Your task to perform on an android device: Find coffee shops on Maps Image 0: 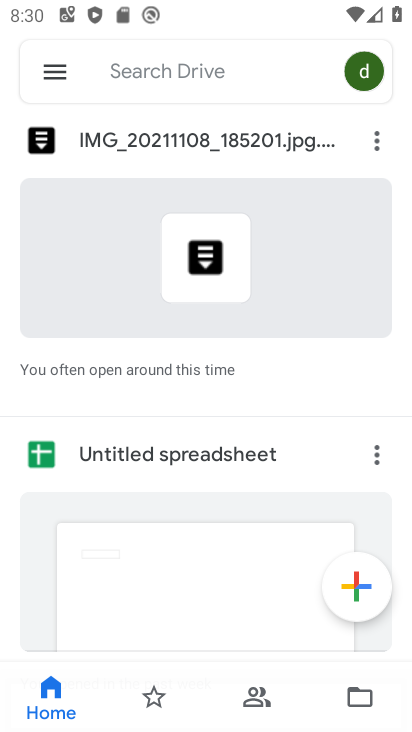
Step 0: press home button
Your task to perform on an android device: Find coffee shops on Maps Image 1: 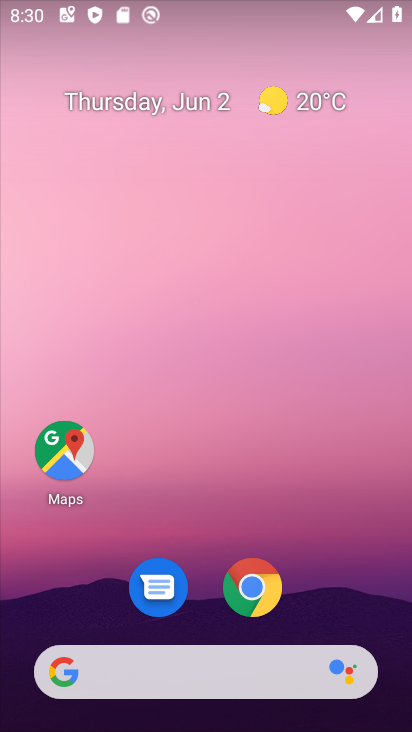
Step 1: click (74, 443)
Your task to perform on an android device: Find coffee shops on Maps Image 2: 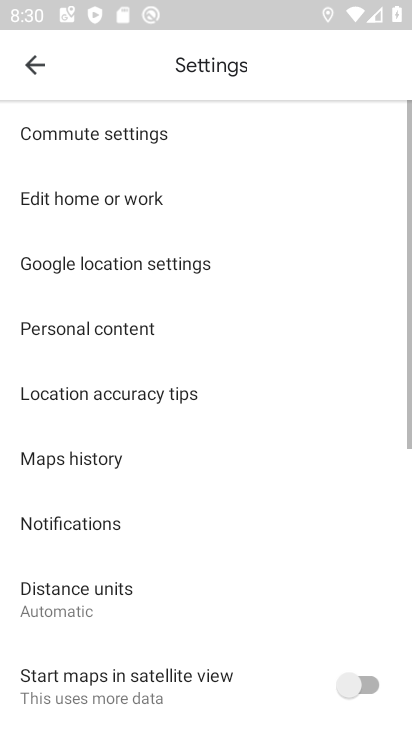
Step 2: click (31, 56)
Your task to perform on an android device: Find coffee shops on Maps Image 3: 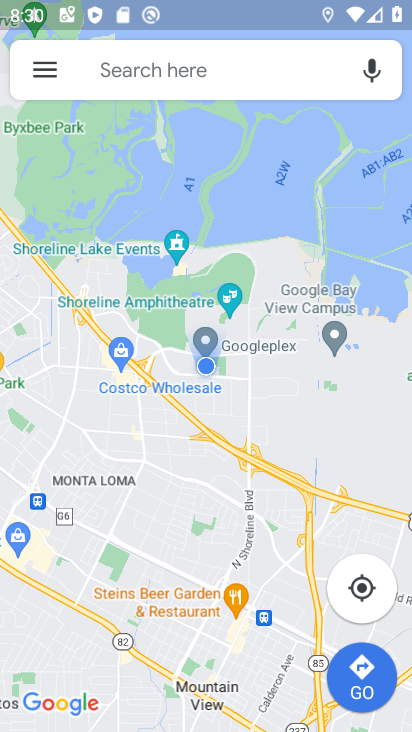
Step 3: click (201, 85)
Your task to perform on an android device: Find coffee shops on Maps Image 4: 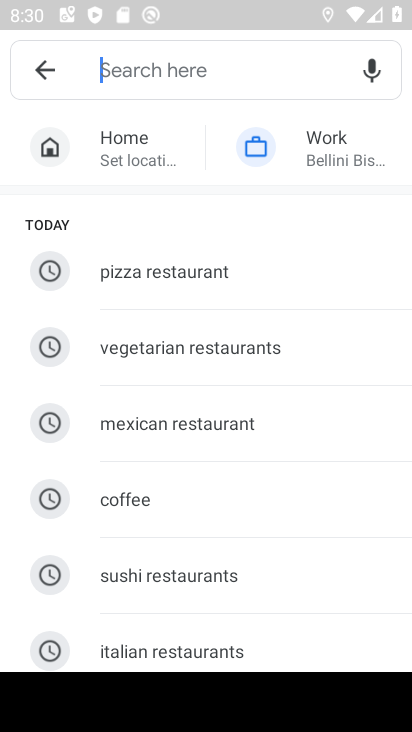
Step 4: click (116, 512)
Your task to perform on an android device: Find coffee shops on Maps Image 5: 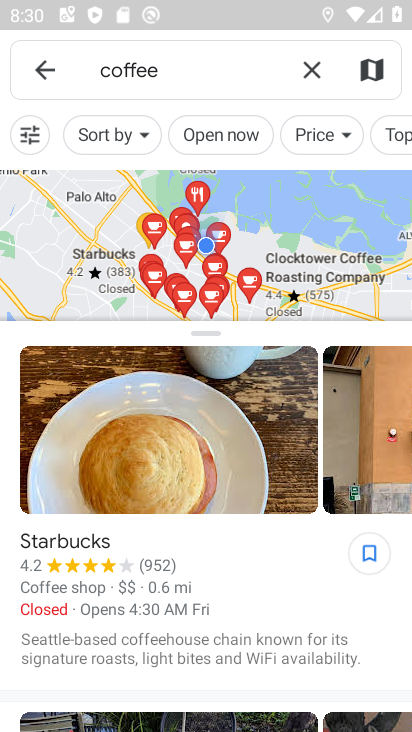
Step 5: task complete